Your task to perform on an android device: check data usage Image 0: 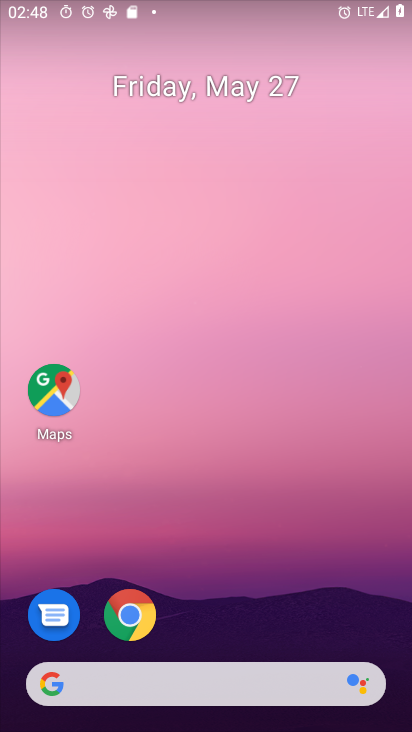
Step 0: drag from (360, 622) to (379, 289)
Your task to perform on an android device: check data usage Image 1: 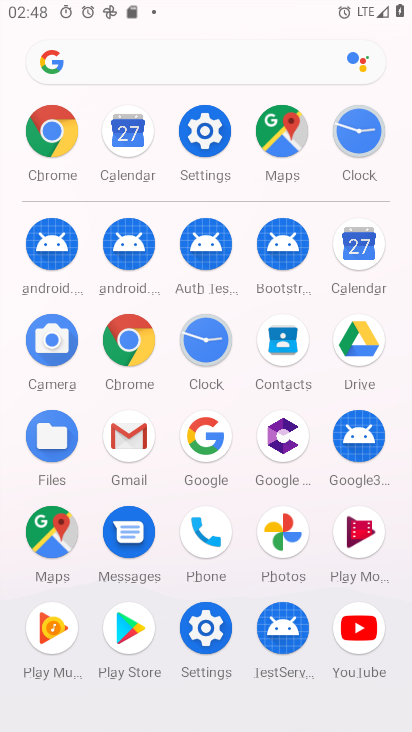
Step 1: drag from (350, 616) to (329, 207)
Your task to perform on an android device: check data usage Image 2: 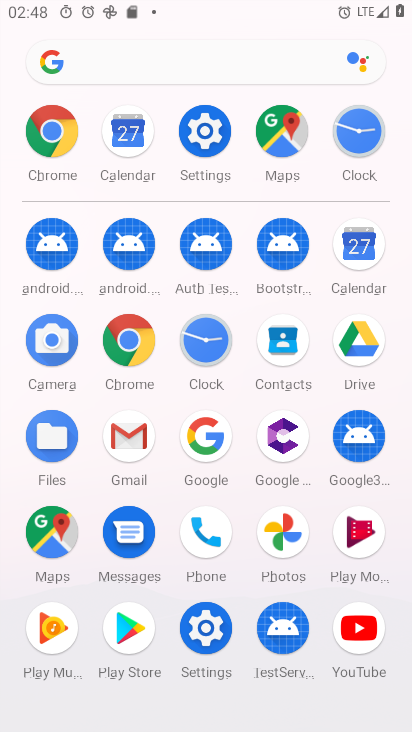
Step 2: click (213, 642)
Your task to perform on an android device: check data usage Image 3: 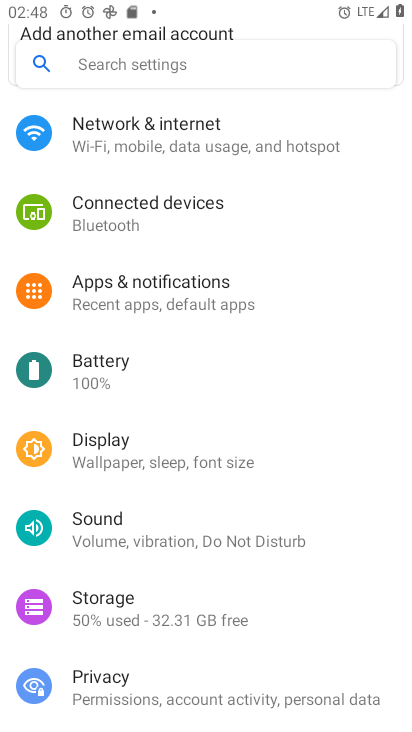
Step 3: drag from (364, 592) to (317, 410)
Your task to perform on an android device: check data usage Image 4: 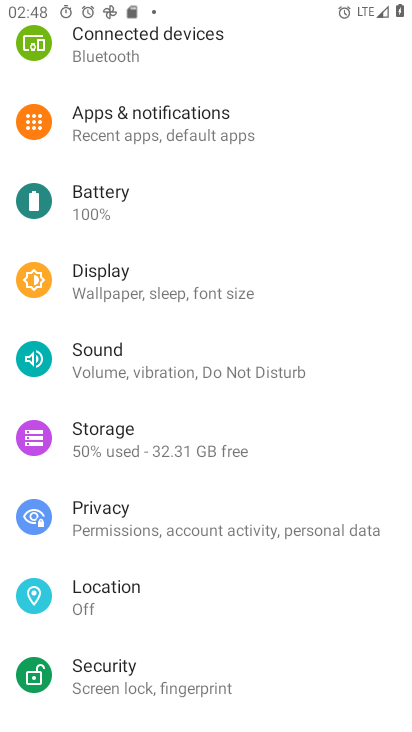
Step 4: drag from (332, 596) to (308, 453)
Your task to perform on an android device: check data usage Image 5: 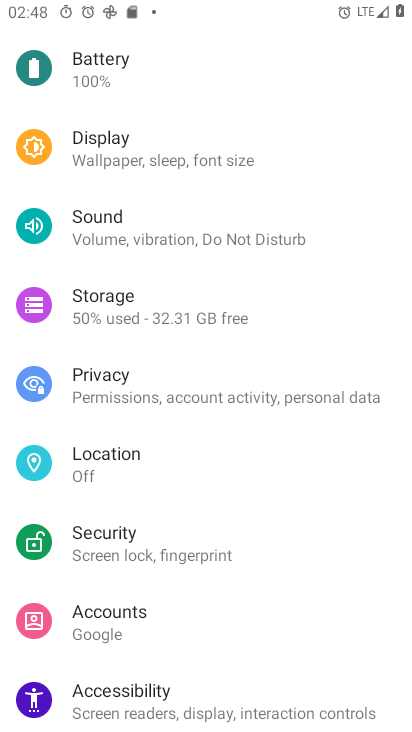
Step 5: drag from (329, 555) to (346, 453)
Your task to perform on an android device: check data usage Image 6: 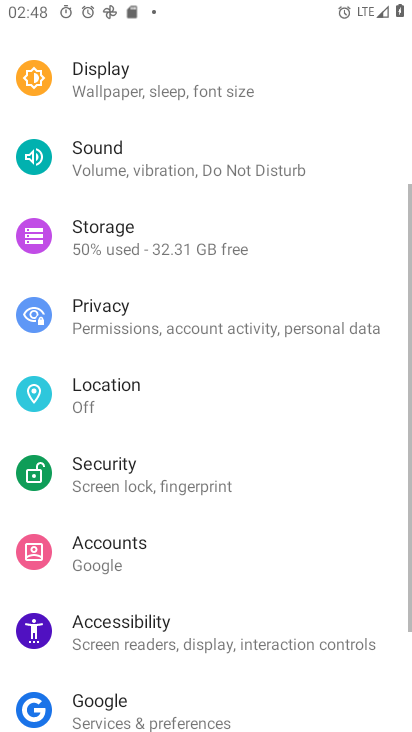
Step 6: drag from (333, 391) to (334, 568)
Your task to perform on an android device: check data usage Image 7: 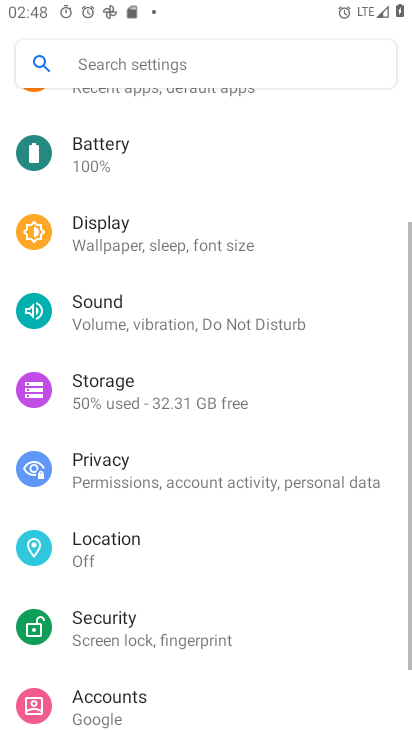
Step 7: drag from (326, 426) to (315, 510)
Your task to perform on an android device: check data usage Image 8: 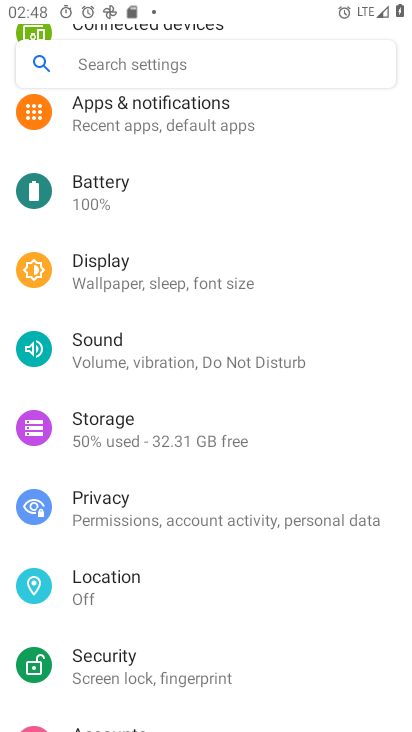
Step 8: drag from (343, 292) to (334, 486)
Your task to perform on an android device: check data usage Image 9: 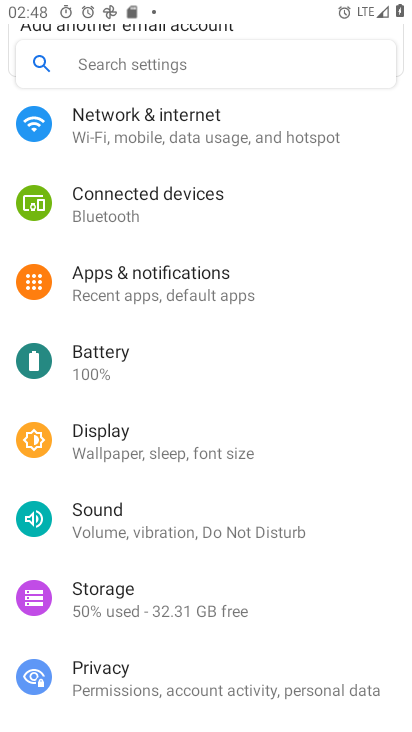
Step 9: drag from (334, 349) to (300, 514)
Your task to perform on an android device: check data usage Image 10: 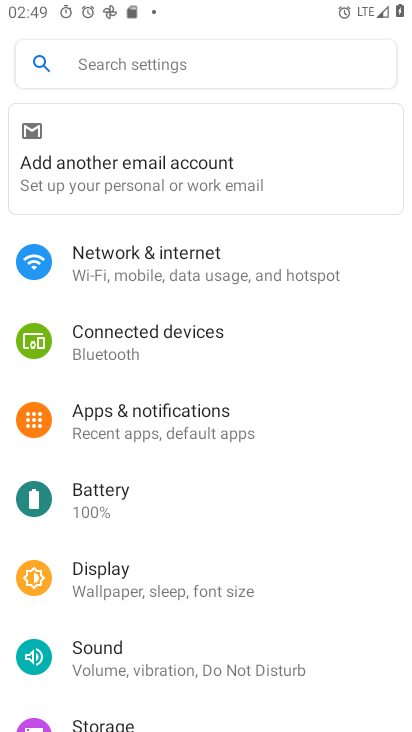
Step 10: drag from (328, 257) to (346, 503)
Your task to perform on an android device: check data usage Image 11: 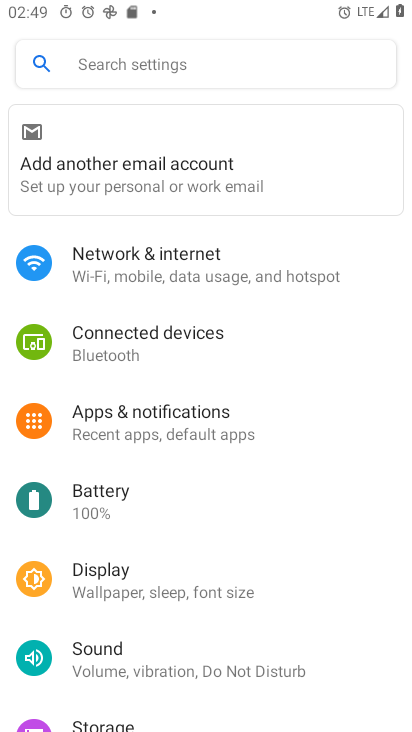
Step 11: click (232, 276)
Your task to perform on an android device: check data usage Image 12: 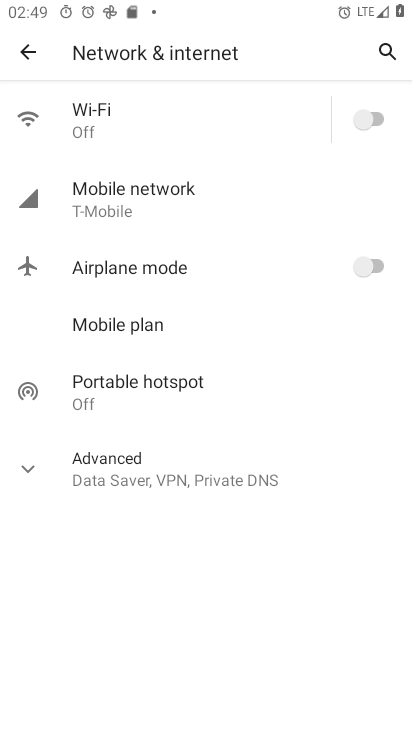
Step 12: click (166, 202)
Your task to perform on an android device: check data usage Image 13: 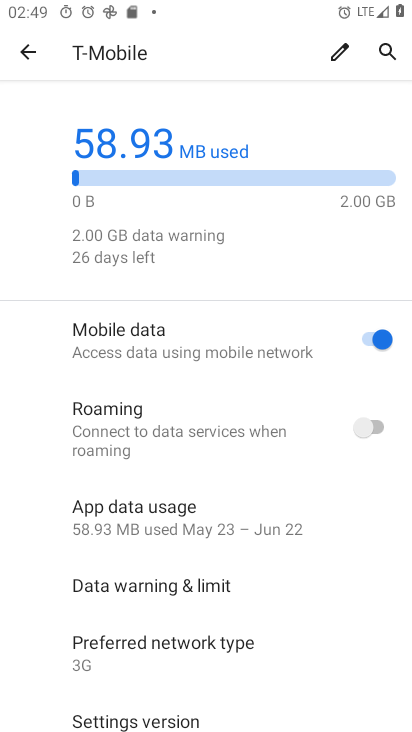
Step 13: click (204, 537)
Your task to perform on an android device: check data usage Image 14: 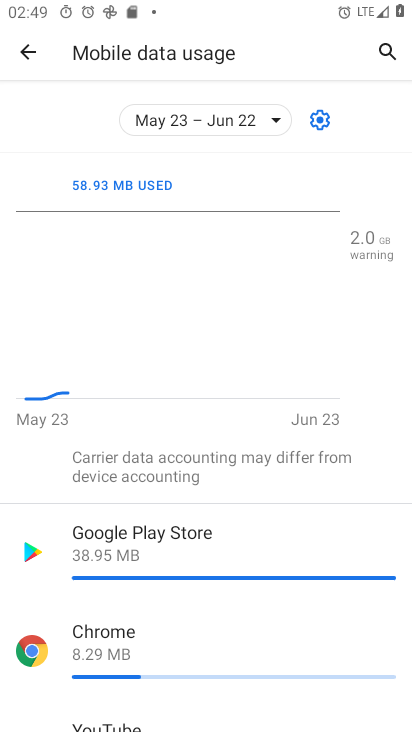
Step 14: task complete